Your task to perform on an android device: choose inbox layout in the gmail app Image 0: 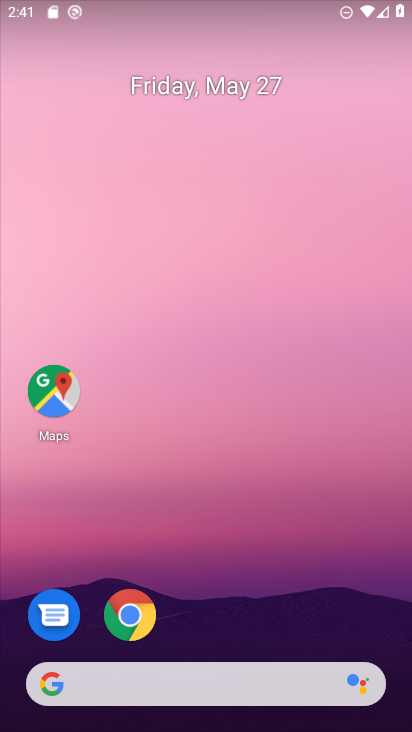
Step 0: drag from (319, 579) to (171, 97)
Your task to perform on an android device: choose inbox layout in the gmail app Image 1: 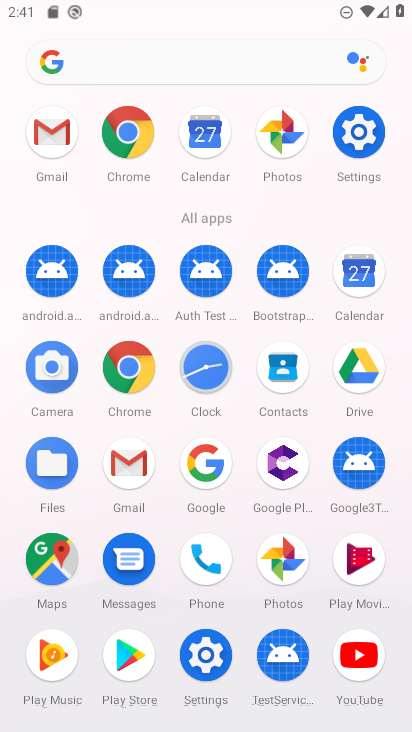
Step 1: click (146, 464)
Your task to perform on an android device: choose inbox layout in the gmail app Image 2: 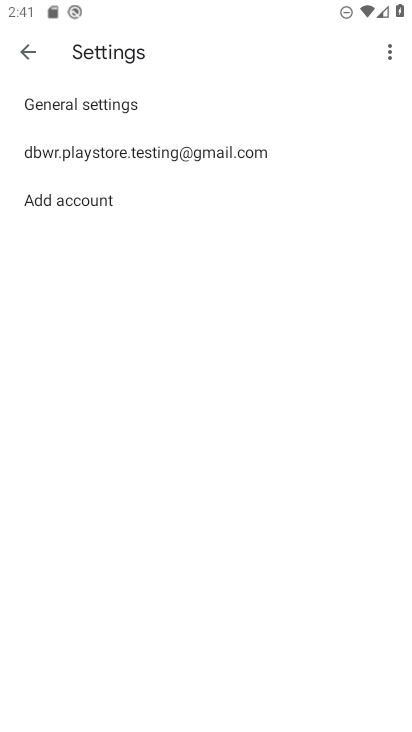
Step 2: click (33, 54)
Your task to perform on an android device: choose inbox layout in the gmail app Image 3: 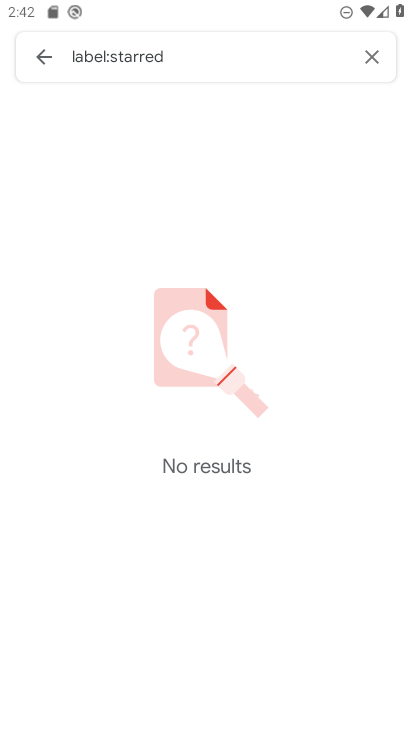
Step 3: click (45, 63)
Your task to perform on an android device: choose inbox layout in the gmail app Image 4: 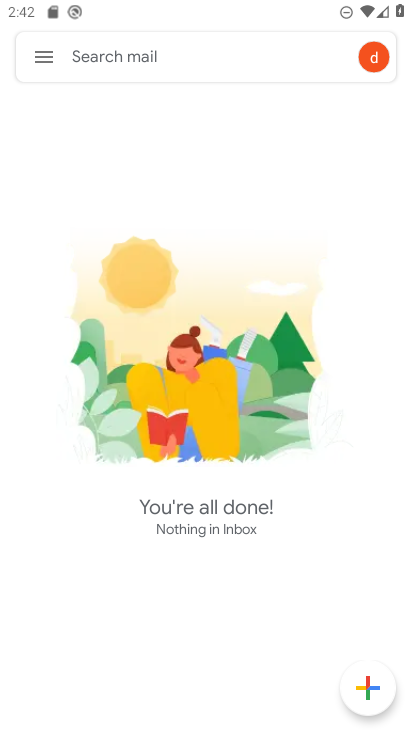
Step 4: drag from (214, 527) to (207, 164)
Your task to perform on an android device: choose inbox layout in the gmail app Image 5: 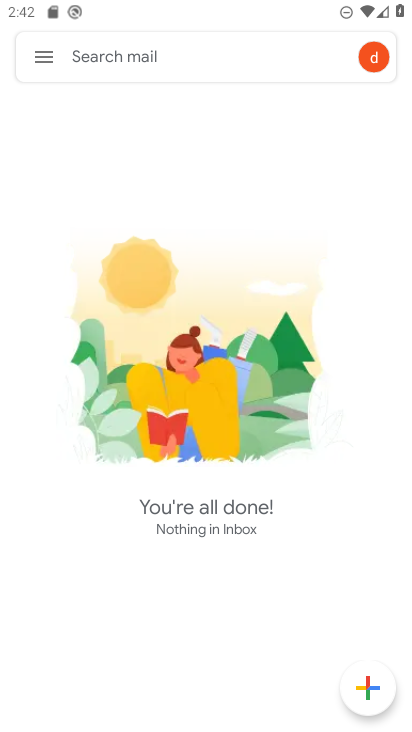
Step 5: click (50, 50)
Your task to perform on an android device: choose inbox layout in the gmail app Image 6: 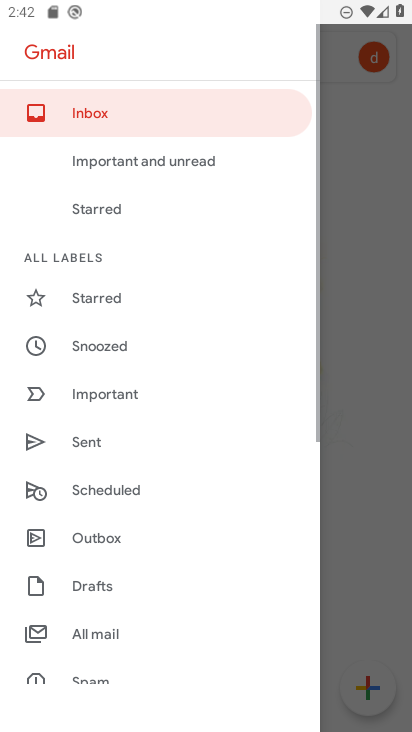
Step 6: drag from (196, 467) to (159, 192)
Your task to perform on an android device: choose inbox layout in the gmail app Image 7: 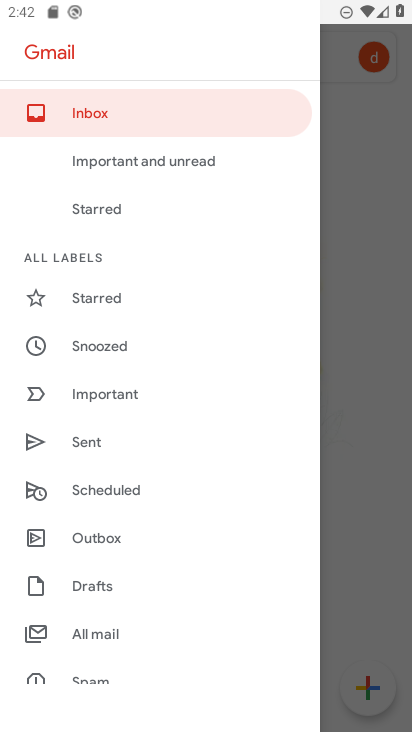
Step 7: drag from (159, 620) to (157, 244)
Your task to perform on an android device: choose inbox layout in the gmail app Image 8: 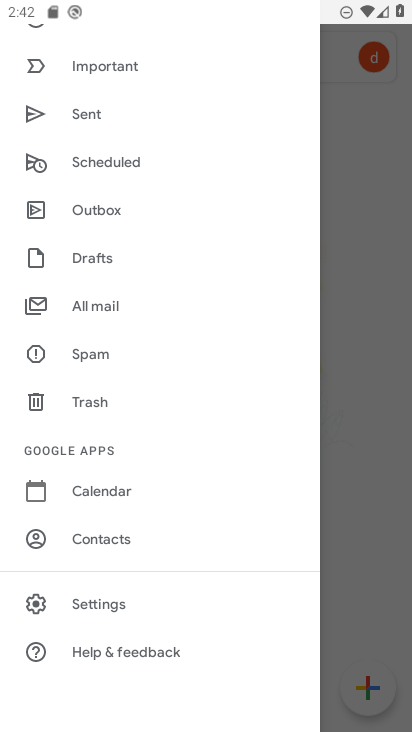
Step 8: click (178, 605)
Your task to perform on an android device: choose inbox layout in the gmail app Image 9: 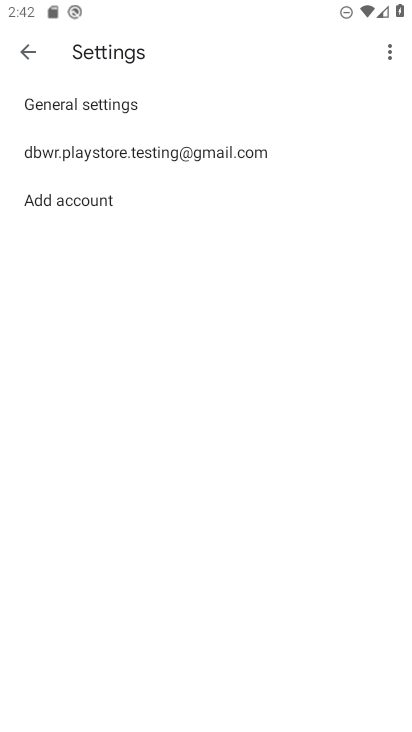
Step 9: click (165, 149)
Your task to perform on an android device: choose inbox layout in the gmail app Image 10: 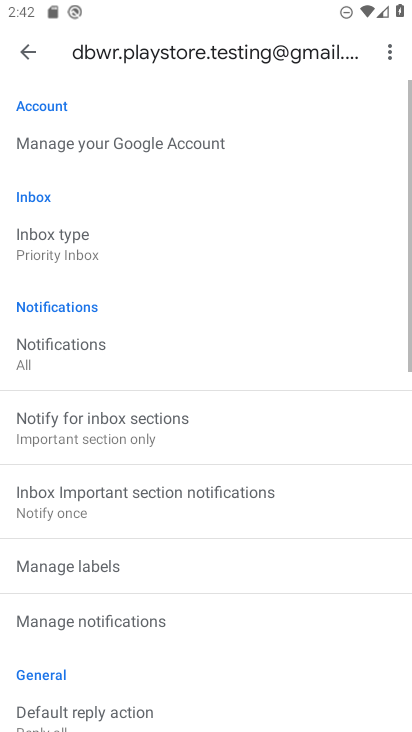
Step 10: click (120, 235)
Your task to perform on an android device: choose inbox layout in the gmail app Image 11: 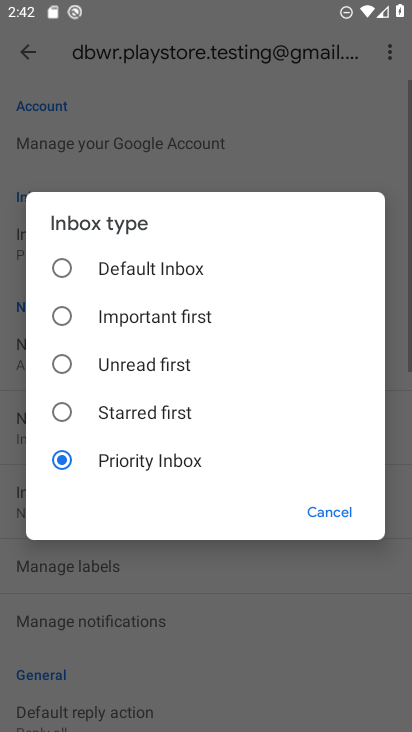
Step 11: click (174, 301)
Your task to perform on an android device: choose inbox layout in the gmail app Image 12: 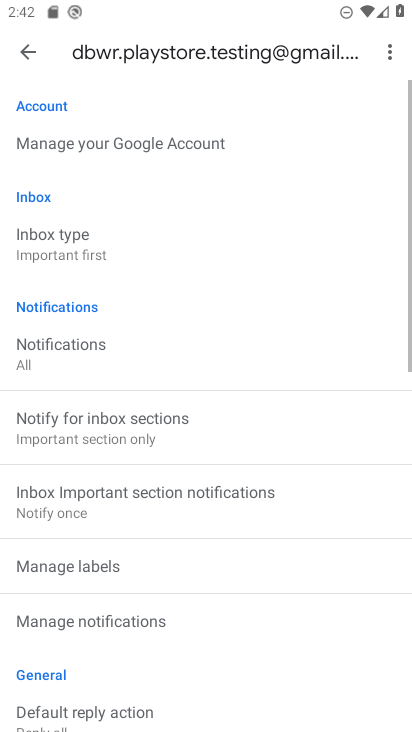
Step 12: task complete